Your task to perform on an android device: change the clock style Image 0: 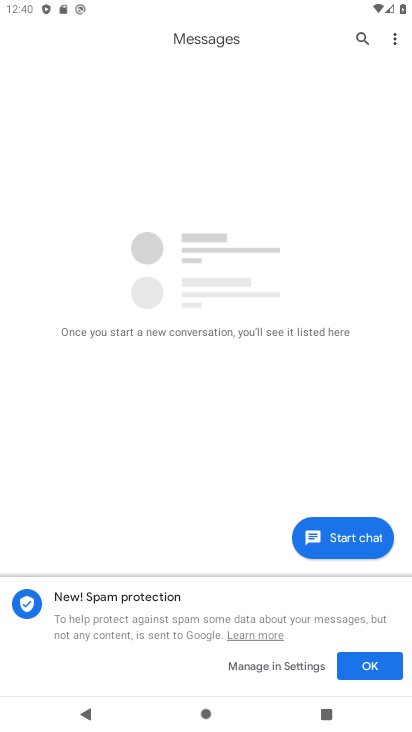
Step 0: press home button
Your task to perform on an android device: change the clock style Image 1: 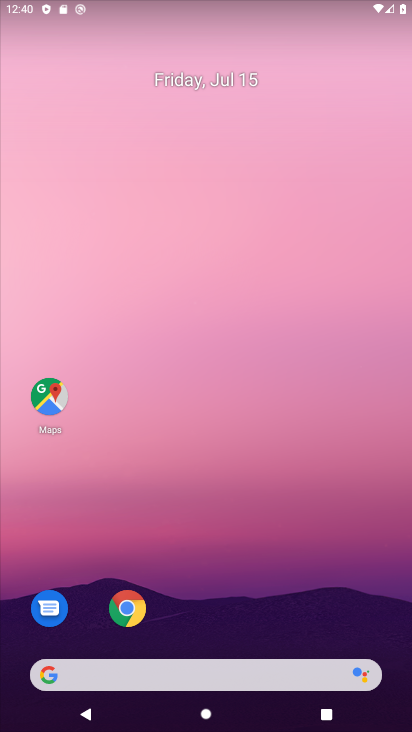
Step 1: drag from (190, 667) to (206, 61)
Your task to perform on an android device: change the clock style Image 2: 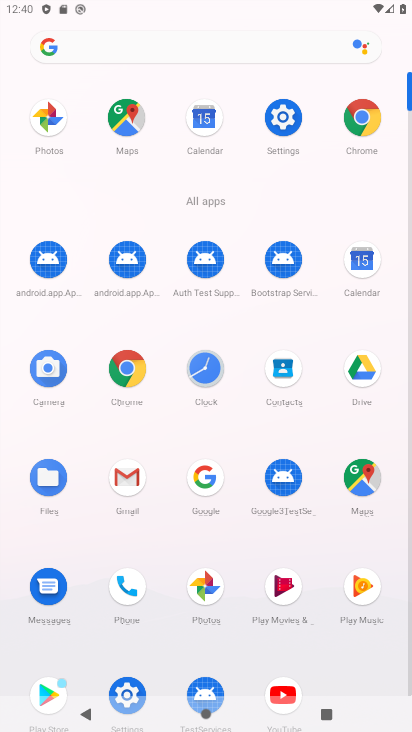
Step 2: click (214, 360)
Your task to perform on an android device: change the clock style Image 3: 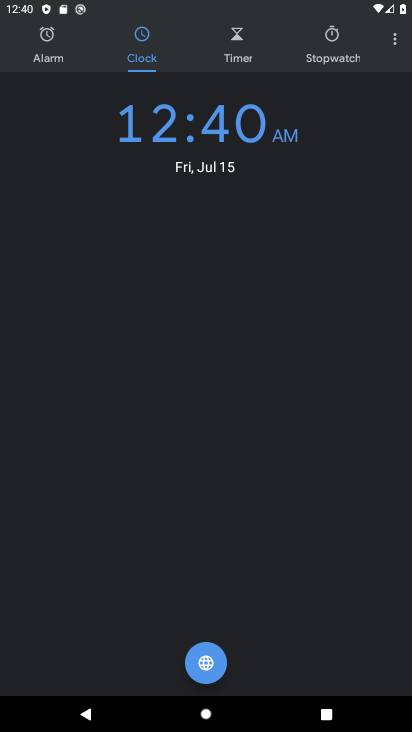
Step 3: click (393, 53)
Your task to perform on an android device: change the clock style Image 4: 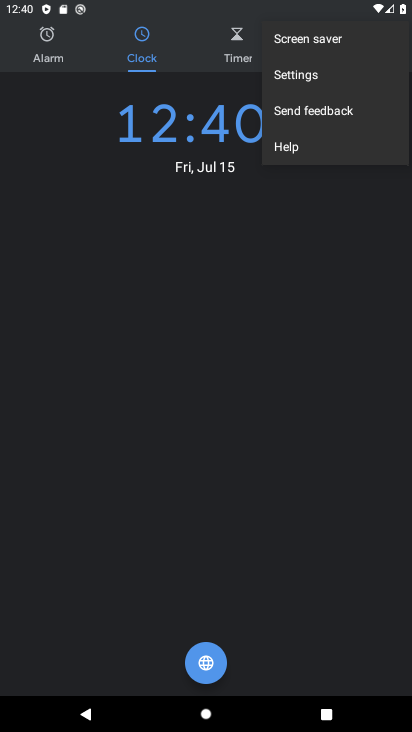
Step 4: click (329, 66)
Your task to perform on an android device: change the clock style Image 5: 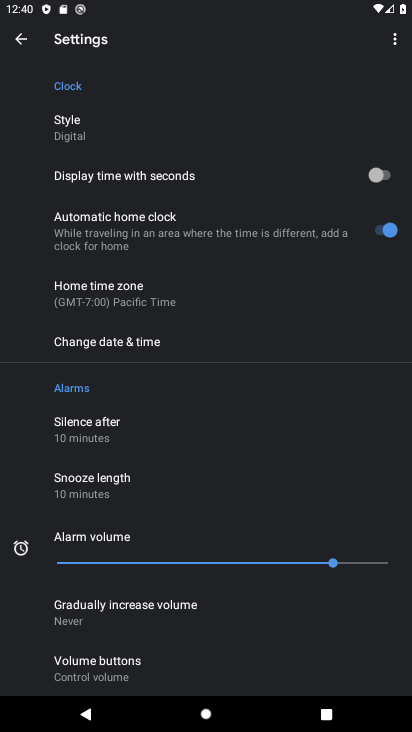
Step 5: click (106, 128)
Your task to perform on an android device: change the clock style Image 6: 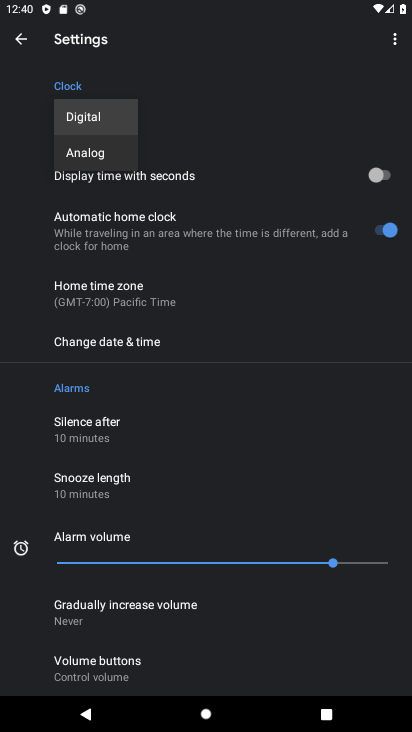
Step 6: click (118, 160)
Your task to perform on an android device: change the clock style Image 7: 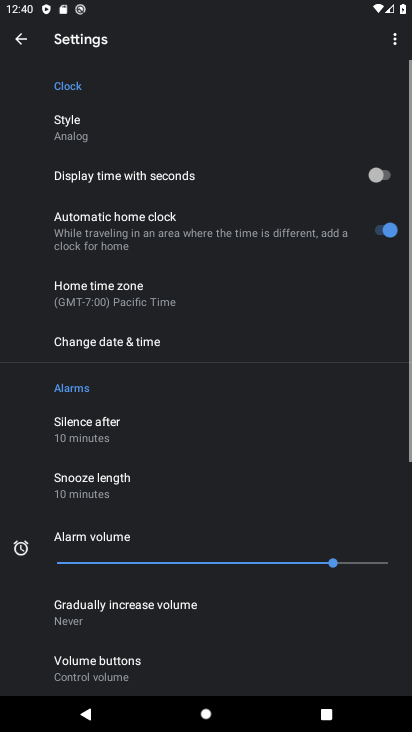
Step 7: task complete